Your task to perform on an android device: Go to Maps Image 0: 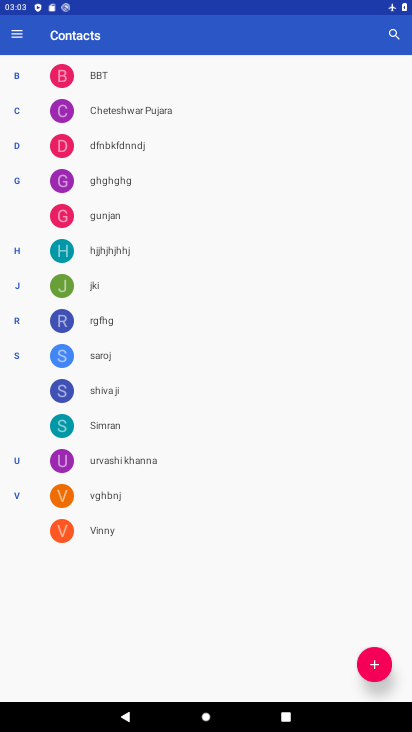
Step 0: press home button
Your task to perform on an android device: Go to Maps Image 1: 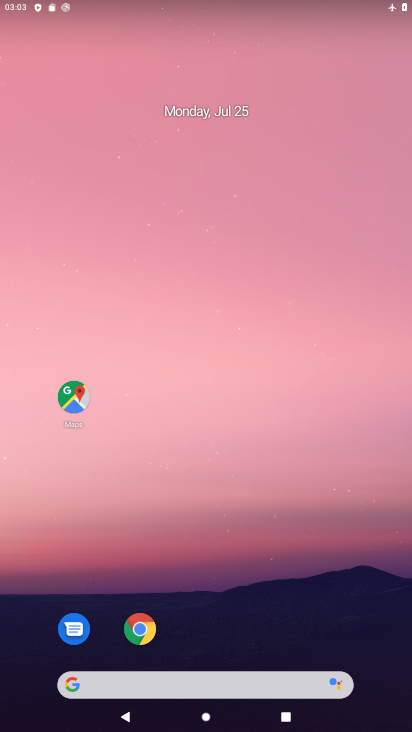
Step 1: click (71, 398)
Your task to perform on an android device: Go to Maps Image 2: 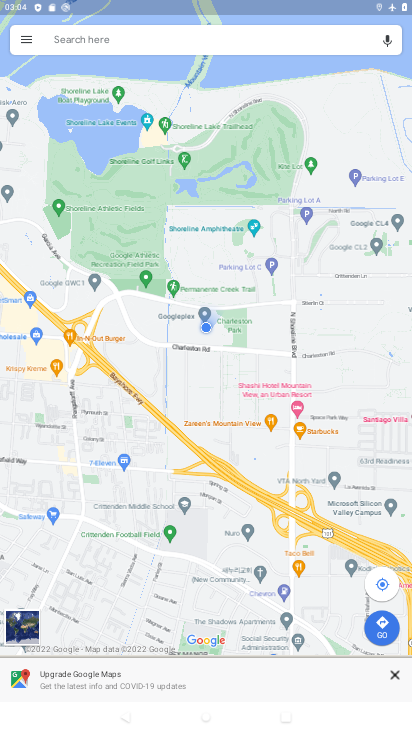
Step 2: task complete